Your task to perform on an android device: What's the news in Singapore? Image 0: 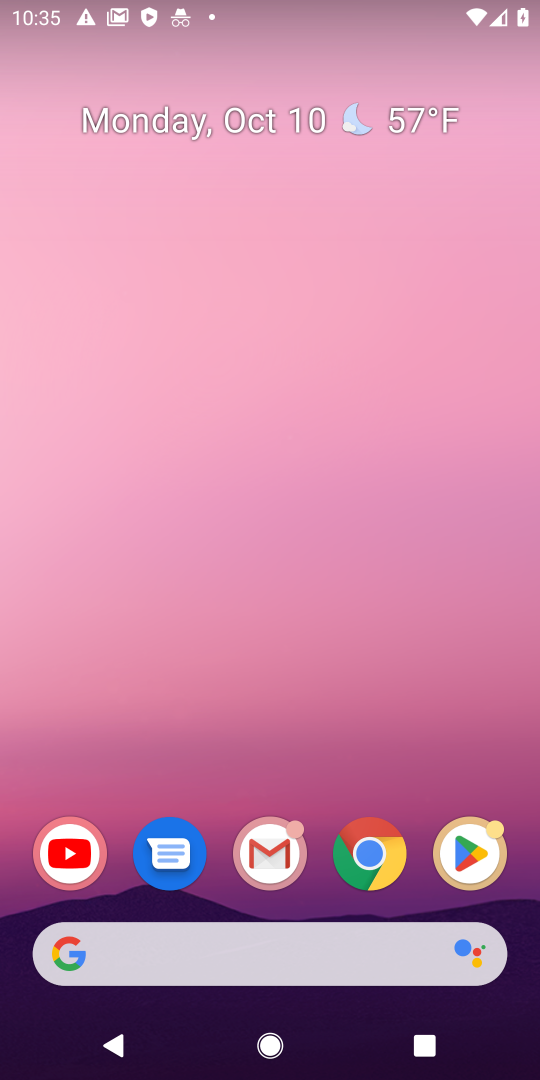
Step 0: press home button
Your task to perform on an android device: What's the news in Singapore? Image 1: 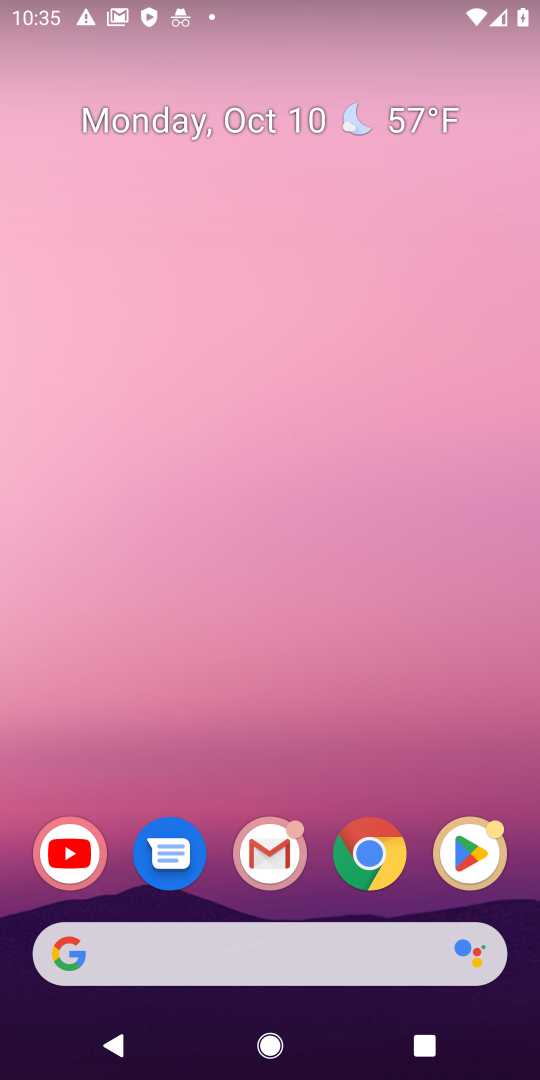
Step 1: click (319, 950)
Your task to perform on an android device: What's the news in Singapore? Image 2: 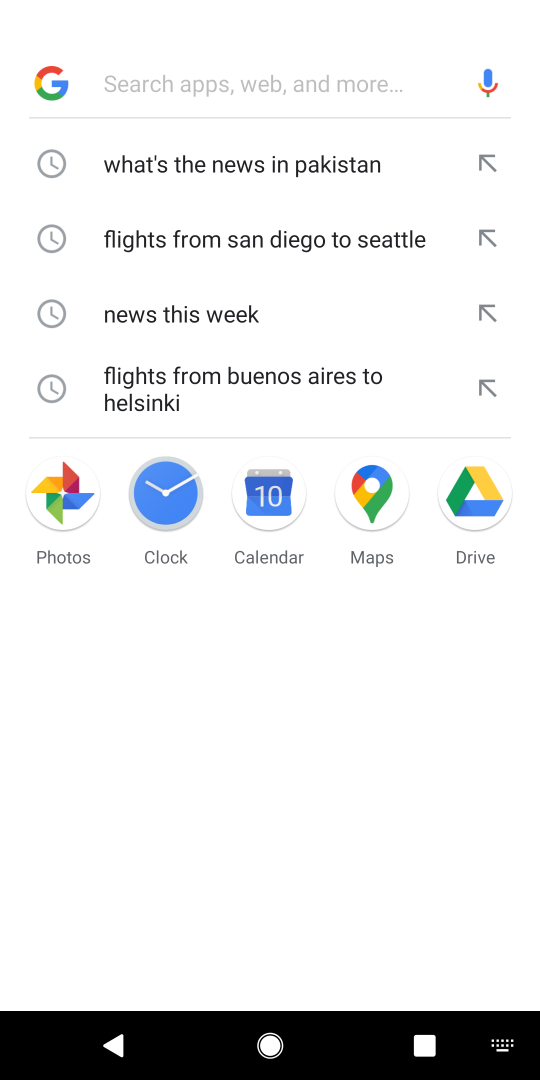
Step 2: press enter
Your task to perform on an android device: What's the news in Singapore? Image 3: 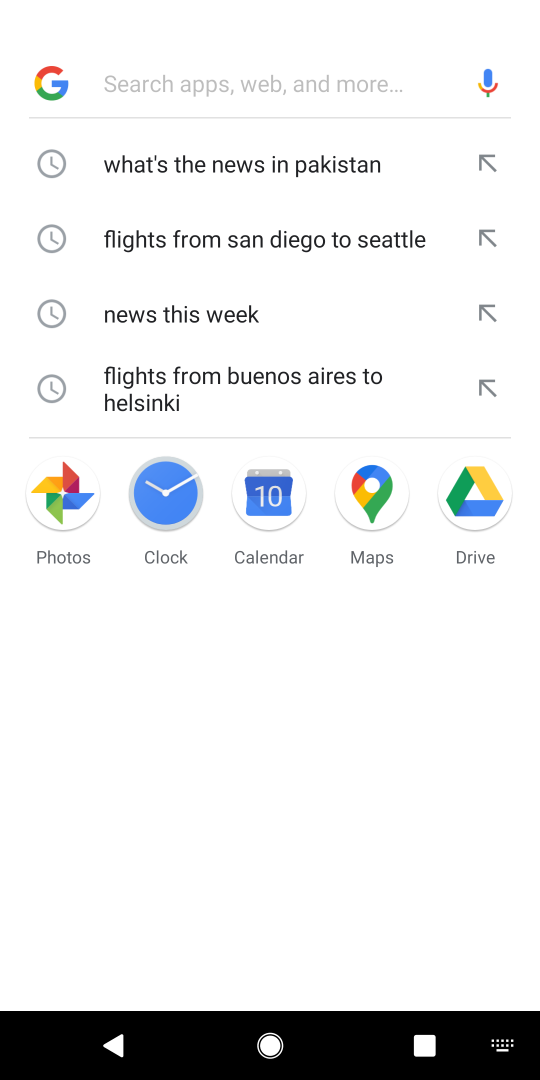
Step 3: type "What's the news in Singapore?"
Your task to perform on an android device: What's the news in Singapore? Image 4: 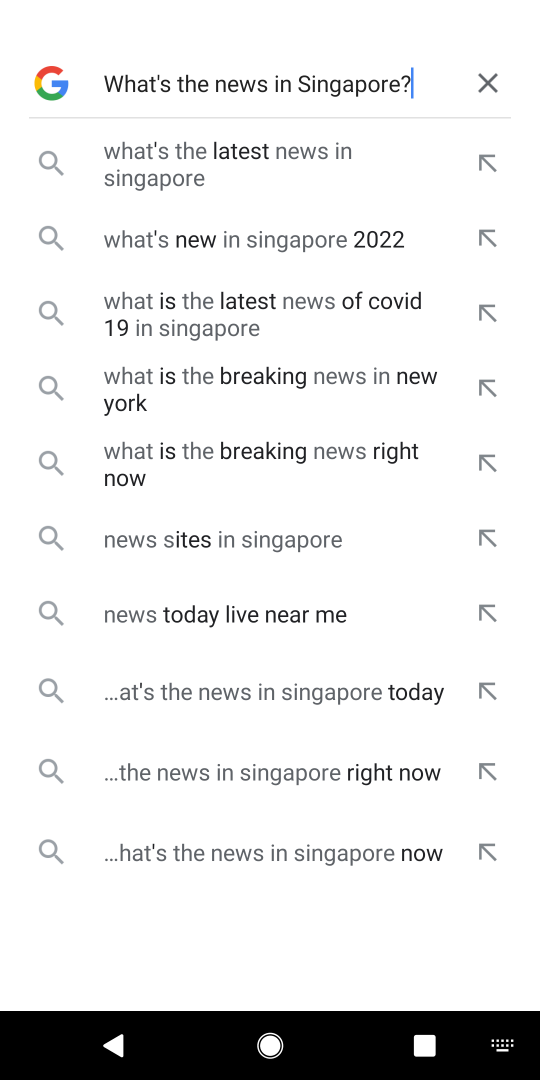
Step 4: press enter
Your task to perform on an android device: What's the news in Singapore? Image 5: 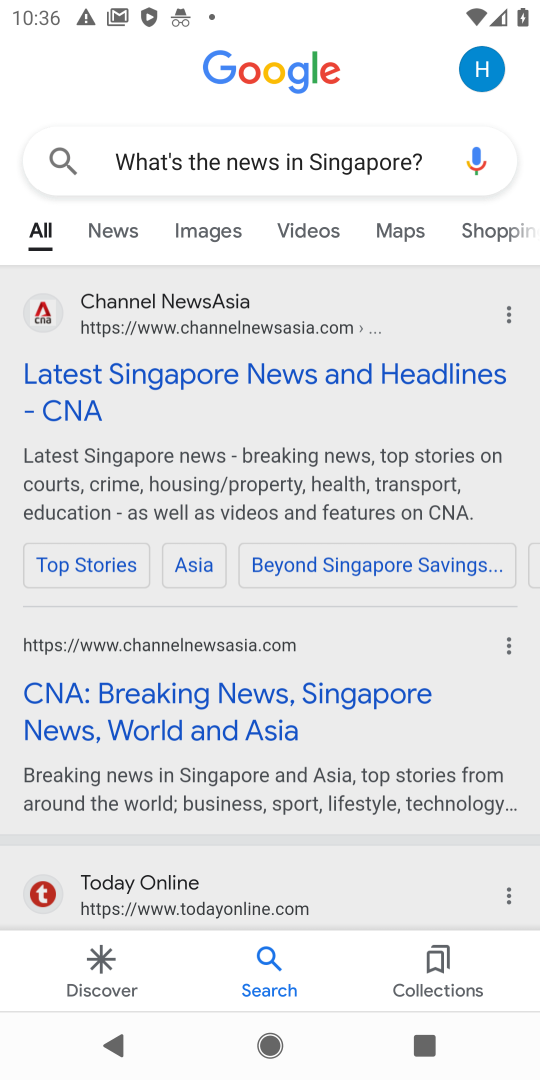
Step 5: click (313, 376)
Your task to perform on an android device: What's the news in Singapore? Image 6: 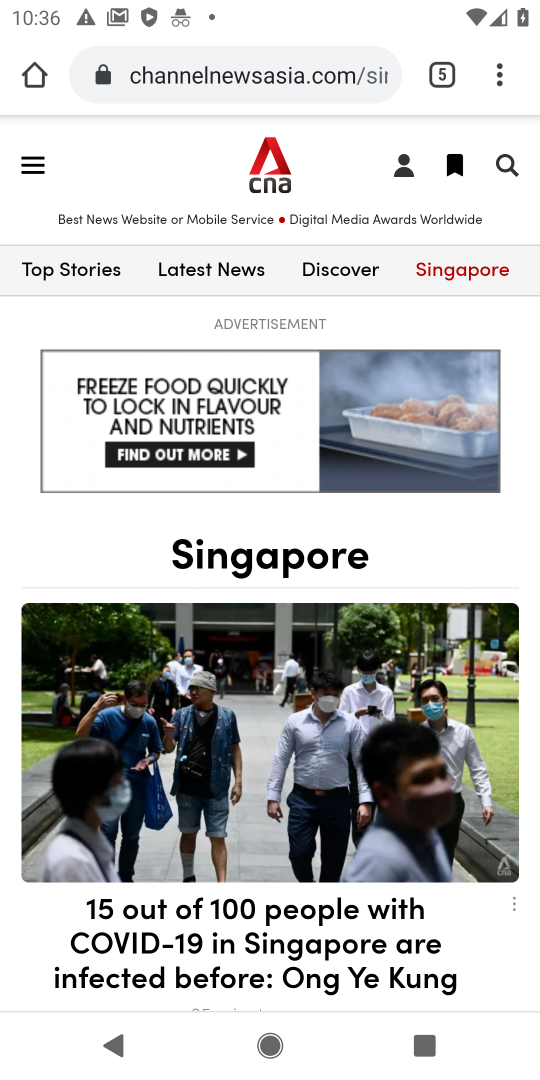
Step 6: task complete